Your task to perform on an android device: Open privacy settings Image 0: 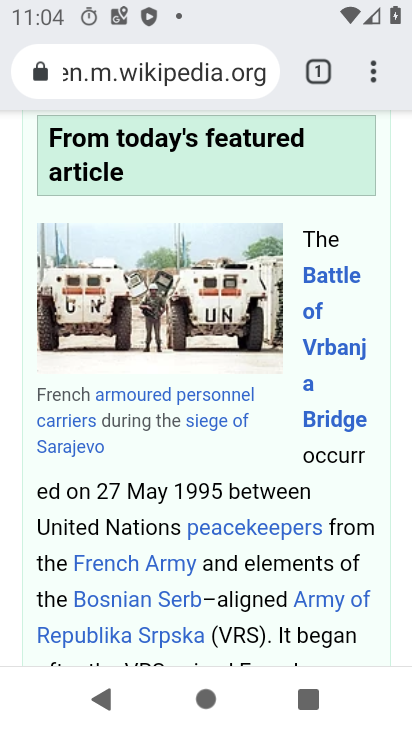
Step 0: press home button
Your task to perform on an android device: Open privacy settings Image 1: 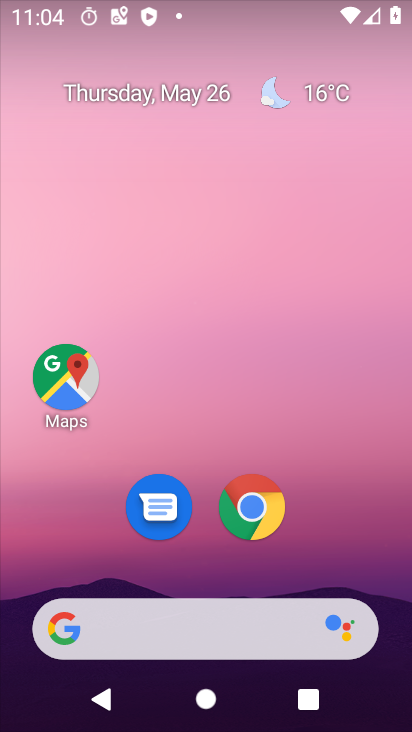
Step 1: drag from (168, 608) to (220, 273)
Your task to perform on an android device: Open privacy settings Image 2: 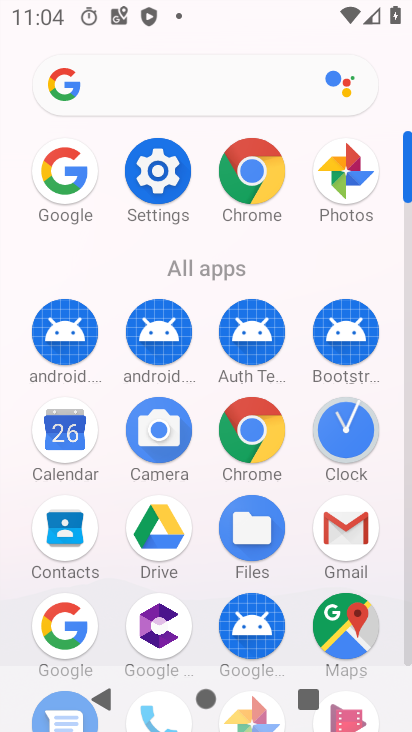
Step 2: click (156, 171)
Your task to perform on an android device: Open privacy settings Image 3: 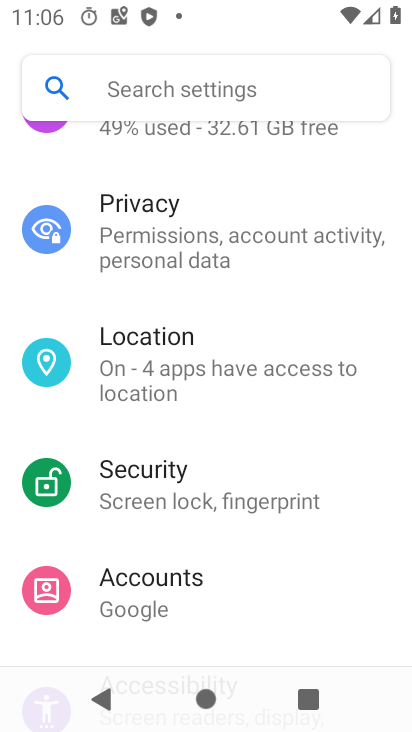
Step 3: click (181, 242)
Your task to perform on an android device: Open privacy settings Image 4: 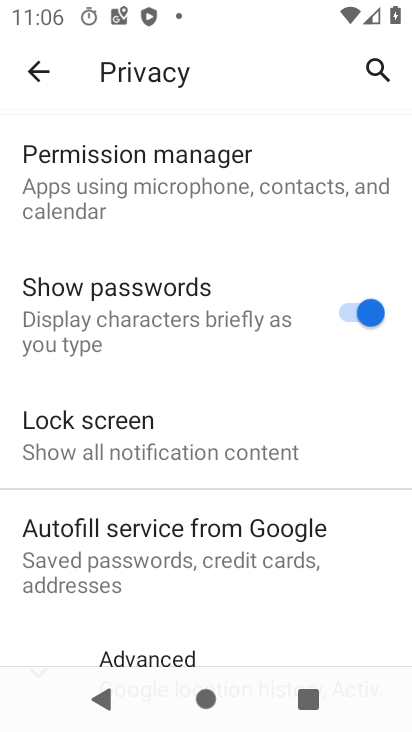
Step 4: drag from (212, 639) to (209, 303)
Your task to perform on an android device: Open privacy settings Image 5: 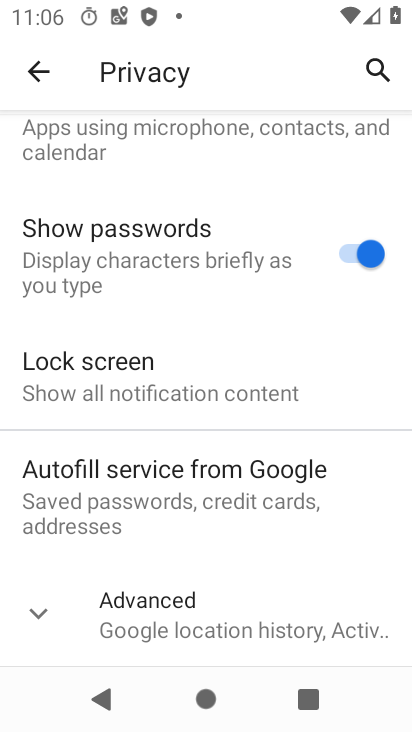
Step 5: click (206, 613)
Your task to perform on an android device: Open privacy settings Image 6: 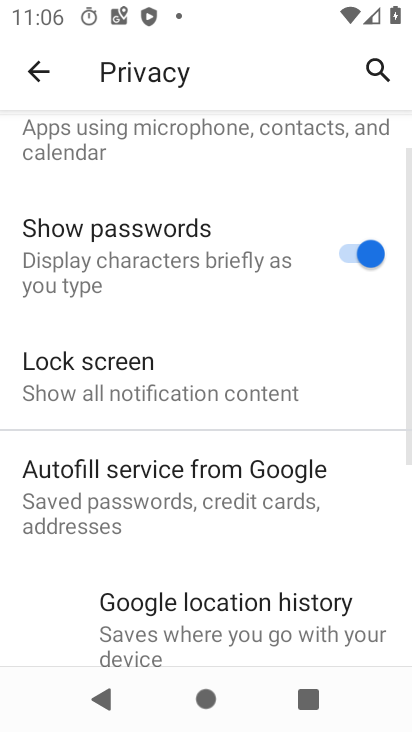
Step 6: task complete